Your task to perform on an android device: turn off data saver in the chrome app Image 0: 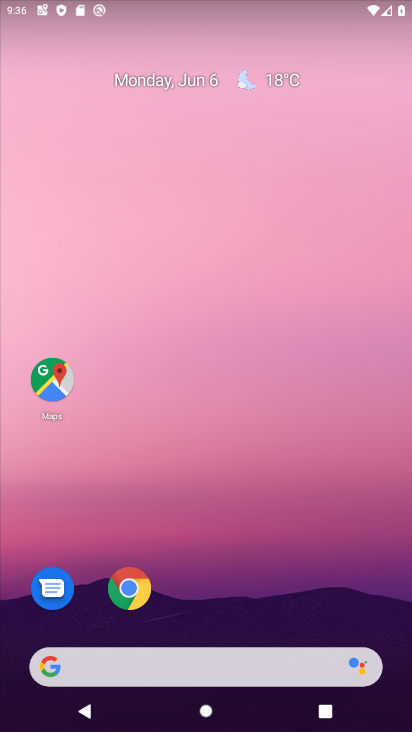
Step 0: click (144, 592)
Your task to perform on an android device: turn off data saver in the chrome app Image 1: 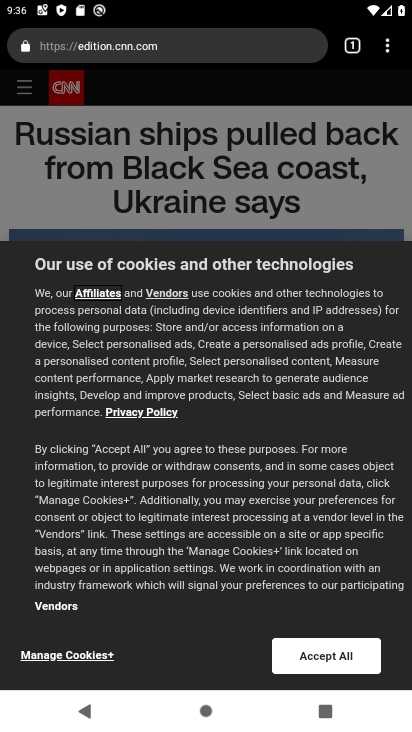
Step 1: click (385, 40)
Your task to perform on an android device: turn off data saver in the chrome app Image 2: 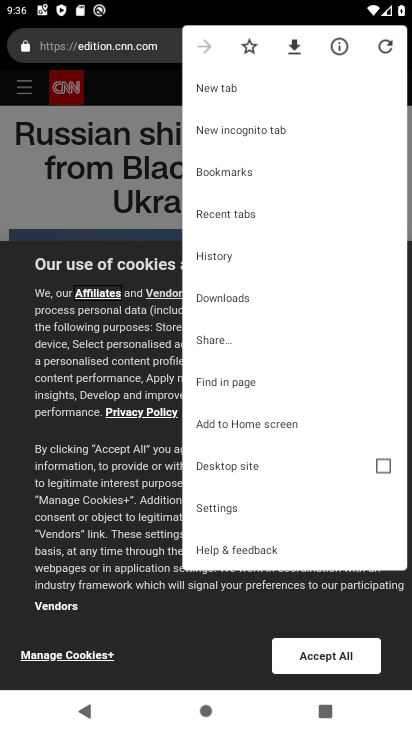
Step 2: click (259, 510)
Your task to perform on an android device: turn off data saver in the chrome app Image 3: 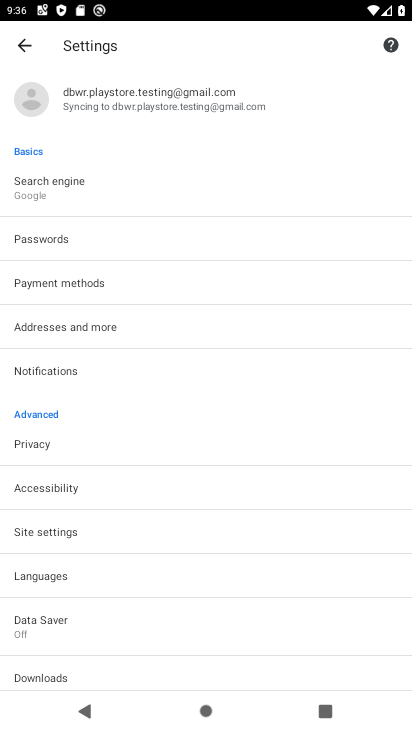
Step 3: click (62, 616)
Your task to perform on an android device: turn off data saver in the chrome app Image 4: 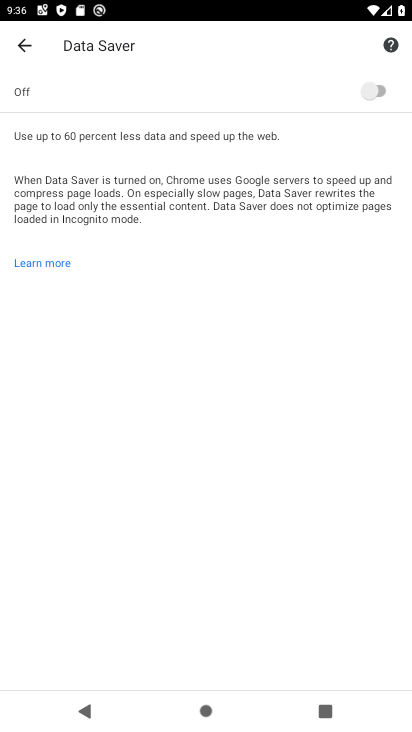
Step 4: task complete